Your task to perform on an android device: turn on priority inbox in the gmail app Image 0: 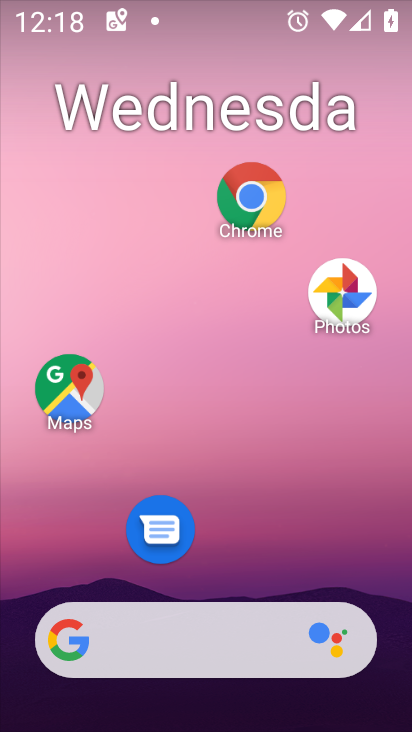
Step 0: drag from (230, 647) to (342, 26)
Your task to perform on an android device: turn on priority inbox in the gmail app Image 1: 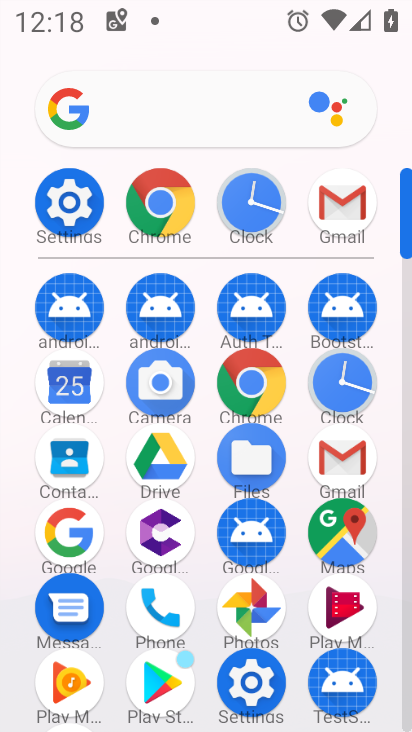
Step 1: click (346, 468)
Your task to perform on an android device: turn on priority inbox in the gmail app Image 2: 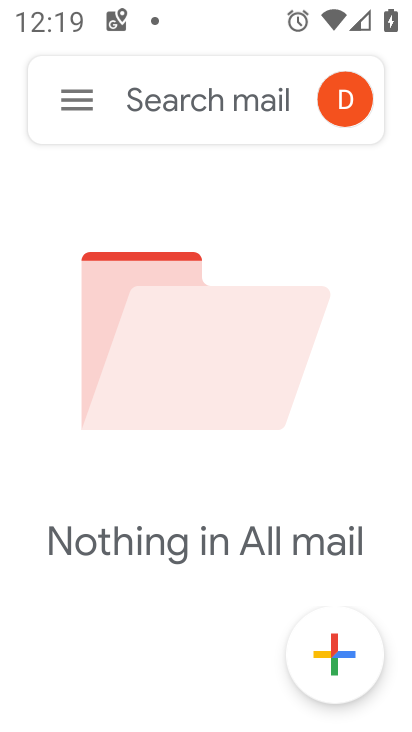
Step 2: click (75, 112)
Your task to perform on an android device: turn on priority inbox in the gmail app Image 3: 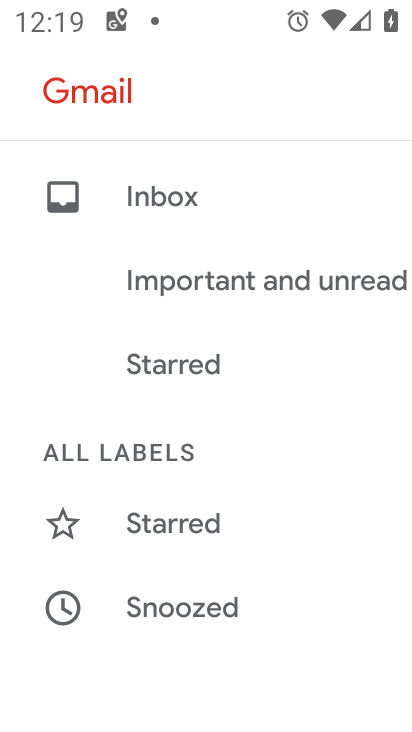
Step 3: drag from (155, 570) to (231, 139)
Your task to perform on an android device: turn on priority inbox in the gmail app Image 4: 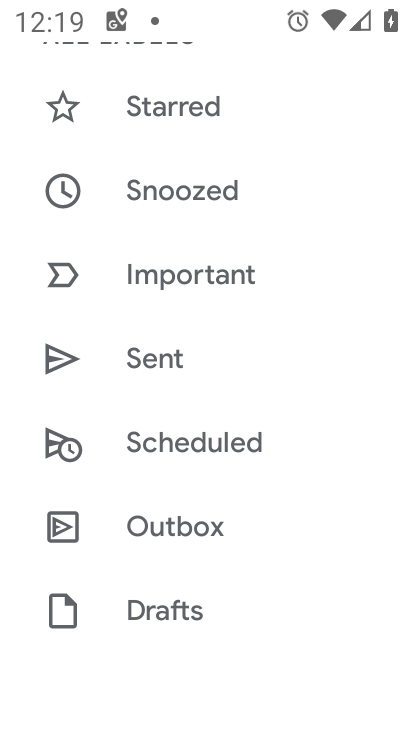
Step 4: drag from (196, 541) to (253, 195)
Your task to perform on an android device: turn on priority inbox in the gmail app Image 5: 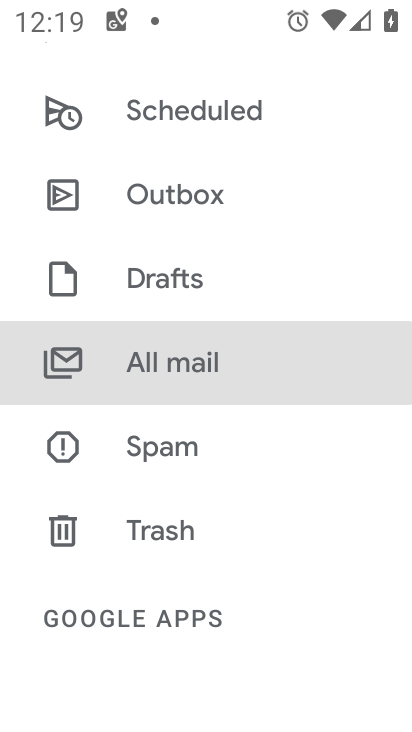
Step 5: drag from (205, 510) to (263, 56)
Your task to perform on an android device: turn on priority inbox in the gmail app Image 6: 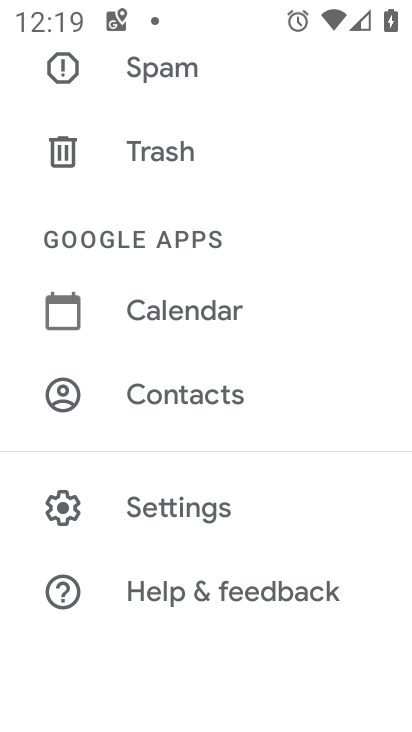
Step 6: click (210, 506)
Your task to perform on an android device: turn on priority inbox in the gmail app Image 7: 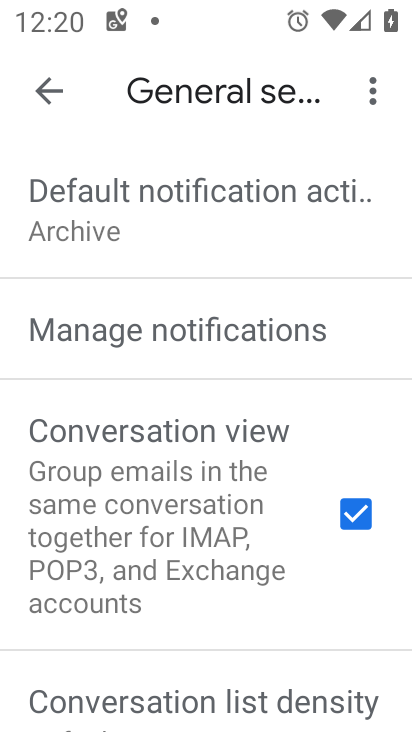
Step 7: click (48, 90)
Your task to perform on an android device: turn on priority inbox in the gmail app Image 8: 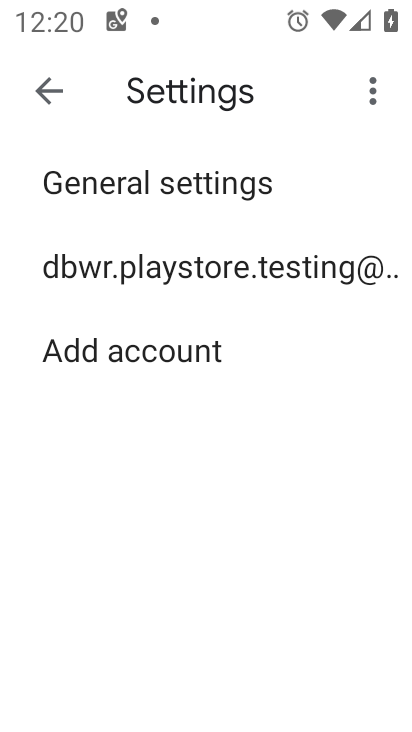
Step 8: click (152, 268)
Your task to perform on an android device: turn on priority inbox in the gmail app Image 9: 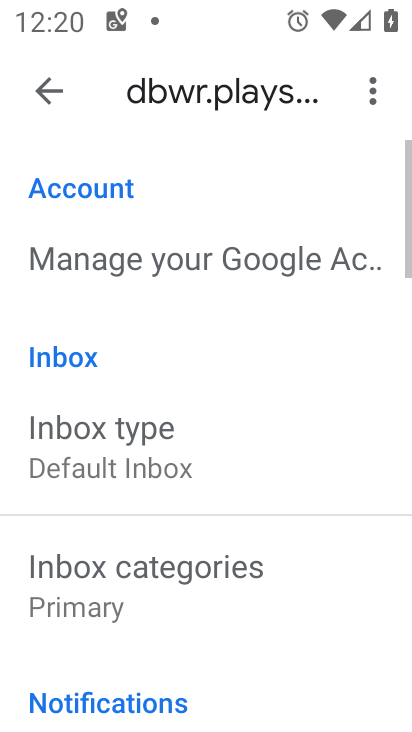
Step 9: click (91, 457)
Your task to perform on an android device: turn on priority inbox in the gmail app Image 10: 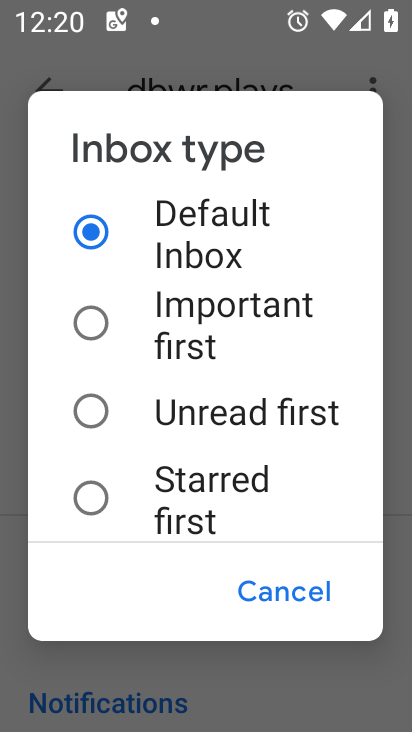
Step 10: drag from (139, 452) to (144, 88)
Your task to perform on an android device: turn on priority inbox in the gmail app Image 11: 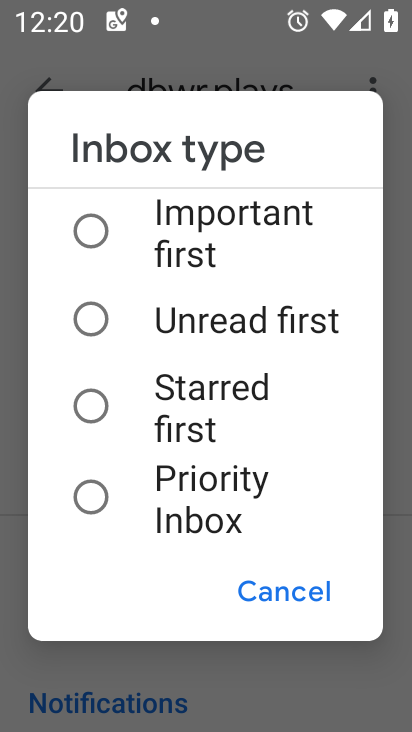
Step 11: click (99, 503)
Your task to perform on an android device: turn on priority inbox in the gmail app Image 12: 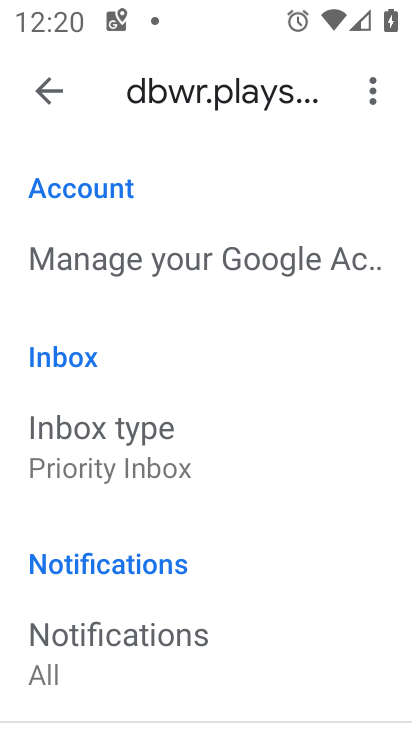
Step 12: task complete